Your task to perform on an android device: set the stopwatch Image 0: 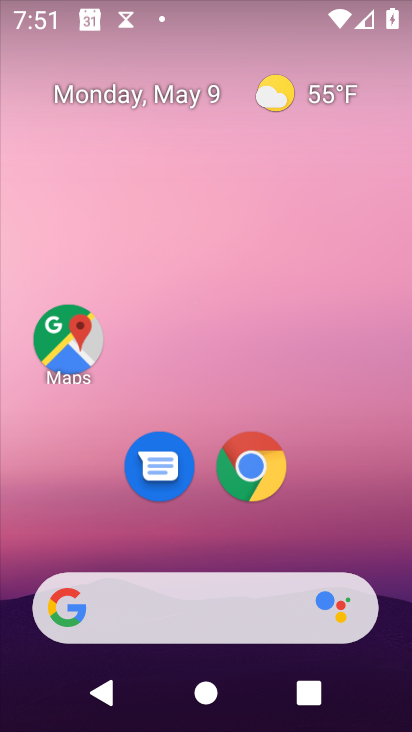
Step 0: drag from (303, 298) to (246, 31)
Your task to perform on an android device: set the stopwatch Image 1: 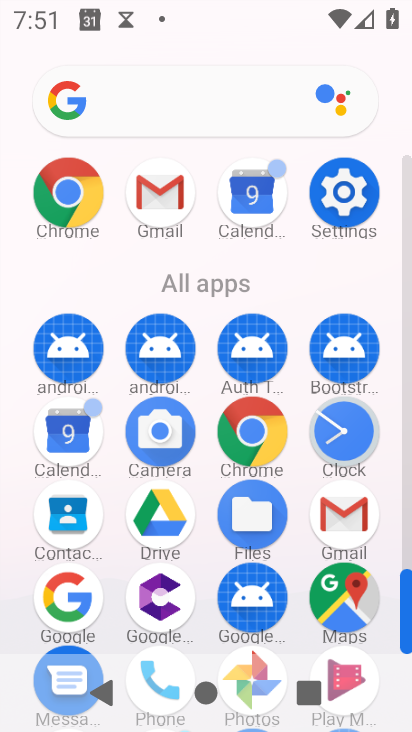
Step 1: click (348, 414)
Your task to perform on an android device: set the stopwatch Image 2: 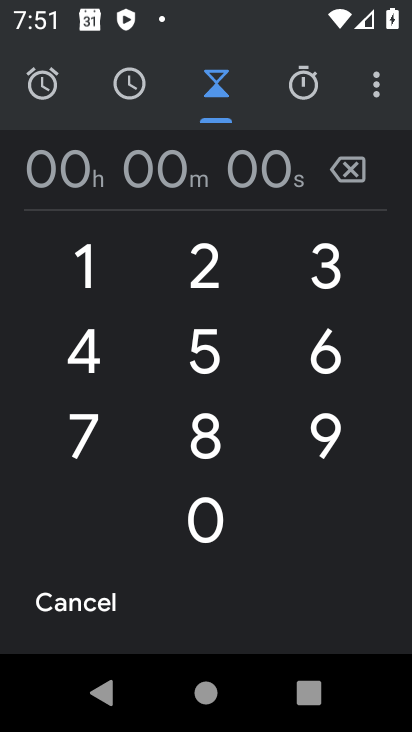
Step 2: click (298, 84)
Your task to perform on an android device: set the stopwatch Image 3: 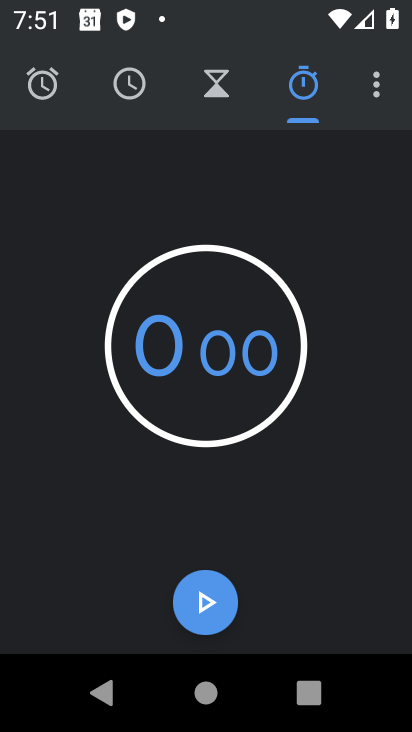
Step 3: click (207, 603)
Your task to perform on an android device: set the stopwatch Image 4: 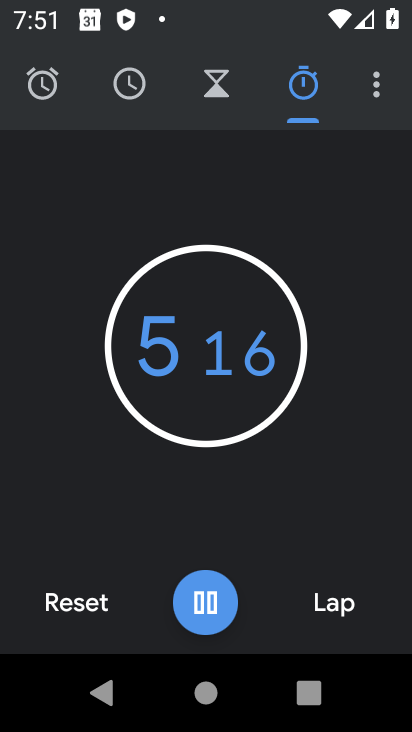
Step 4: click (205, 606)
Your task to perform on an android device: set the stopwatch Image 5: 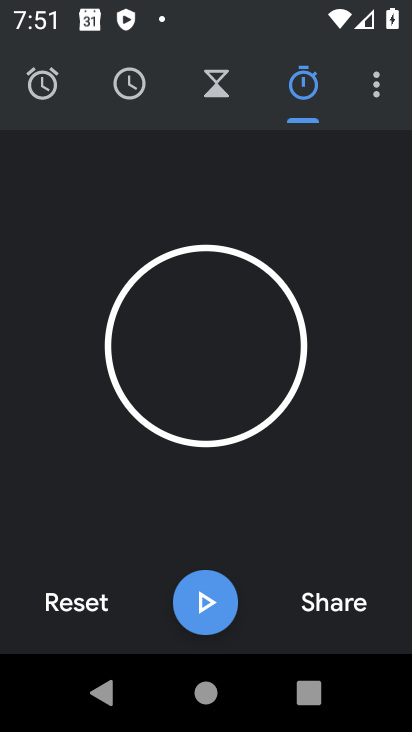
Step 5: task complete